Your task to perform on an android device: Clear all items from cart on bestbuy. Search for "logitech g pro" on bestbuy, select the first entry, and add it to the cart. Image 0: 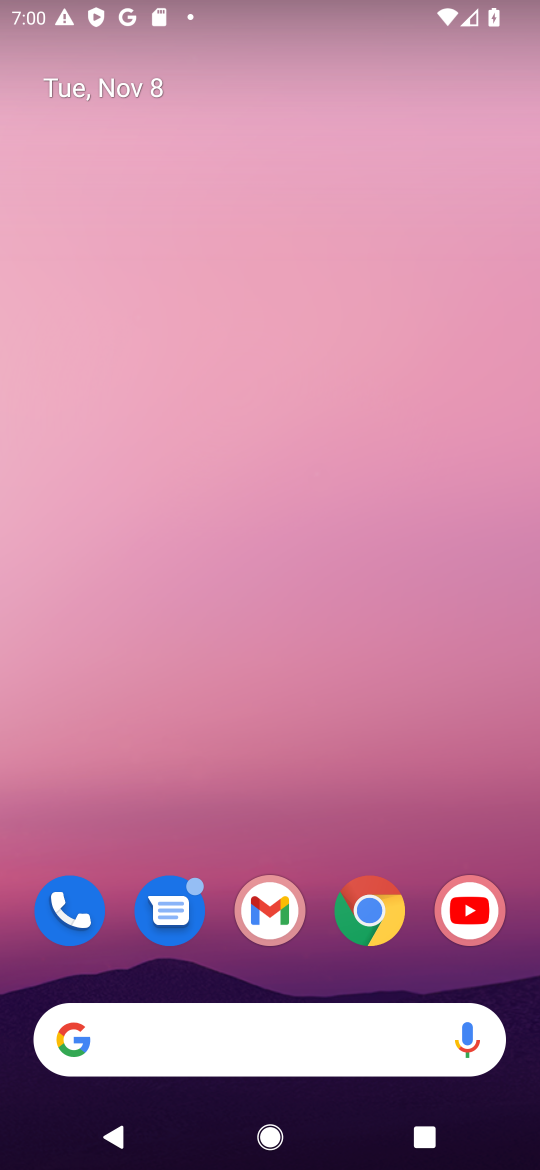
Step 0: click (383, 932)
Your task to perform on an android device: Clear all items from cart on bestbuy. Search for "logitech g pro" on bestbuy, select the first entry, and add it to the cart. Image 1: 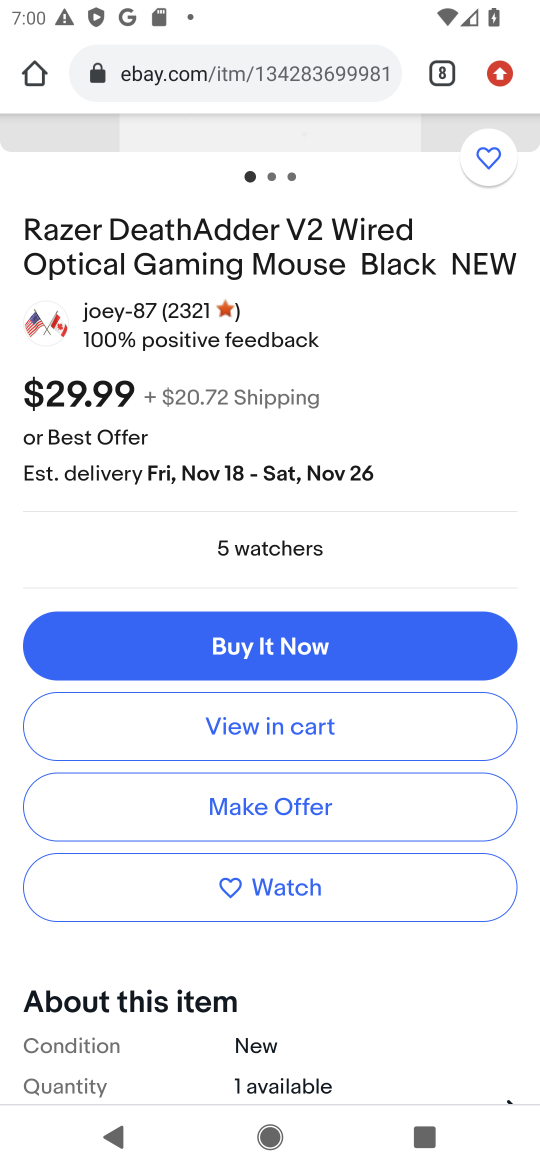
Step 1: click (383, 932)
Your task to perform on an android device: Clear all items from cart on bestbuy. Search for "logitech g pro" on bestbuy, select the first entry, and add it to the cart. Image 2: 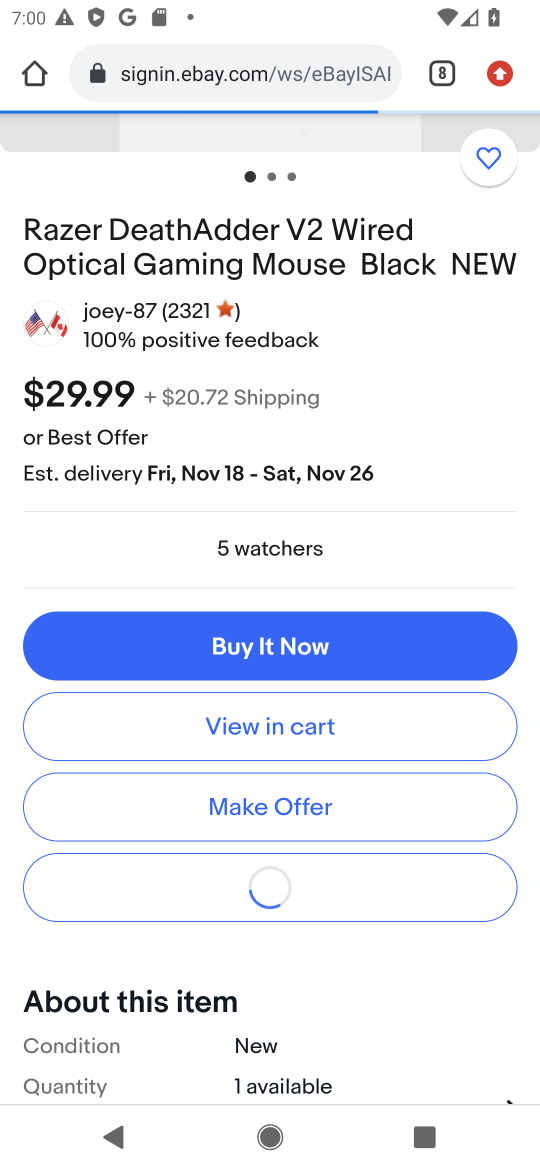
Step 2: click (437, 78)
Your task to perform on an android device: Clear all items from cart on bestbuy. Search for "logitech g pro" on bestbuy, select the first entry, and add it to the cart. Image 3: 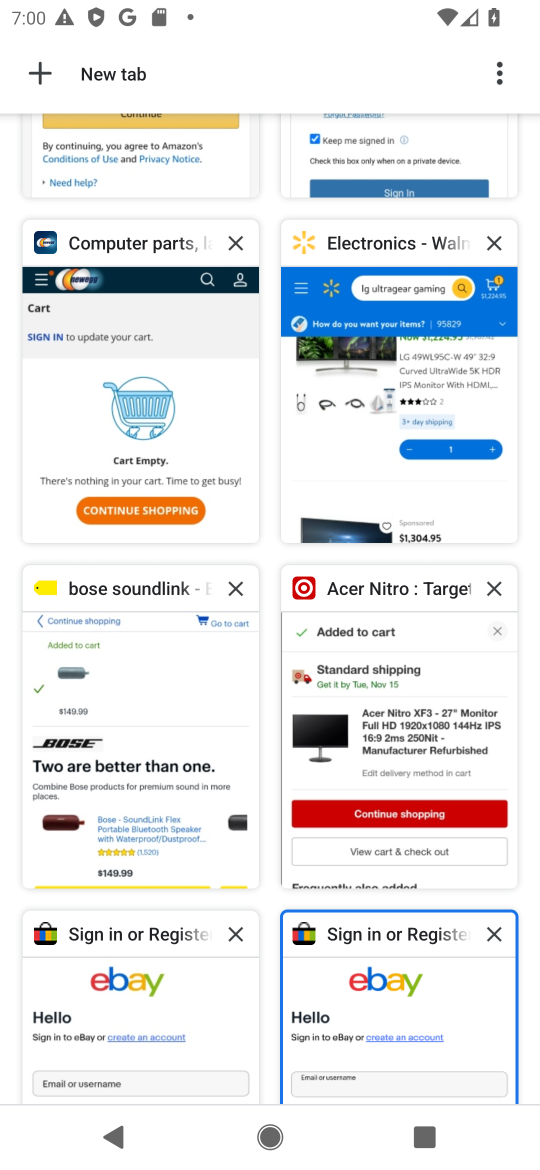
Step 3: click (129, 723)
Your task to perform on an android device: Clear all items from cart on bestbuy. Search for "logitech g pro" on bestbuy, select the first entry, and add it to the cart. Image 4: 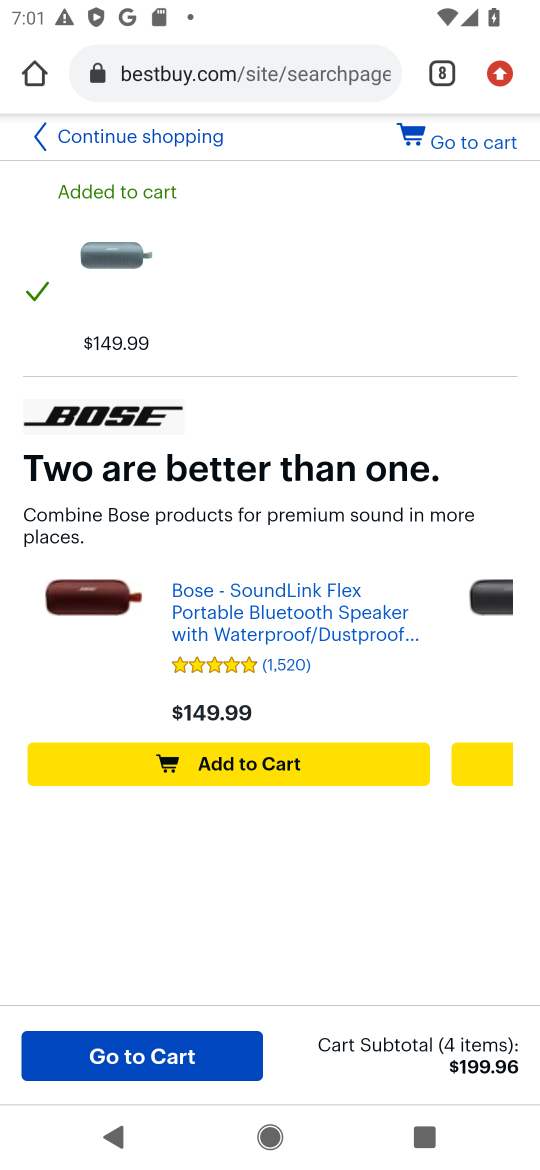
Step 4: click (161, 136)
Your task to perform on an android device: Clear all items from cart on bestbuy. Search for "logitech g pro" on bestbuy, select the first entry, and add it to the cart. Image 5: 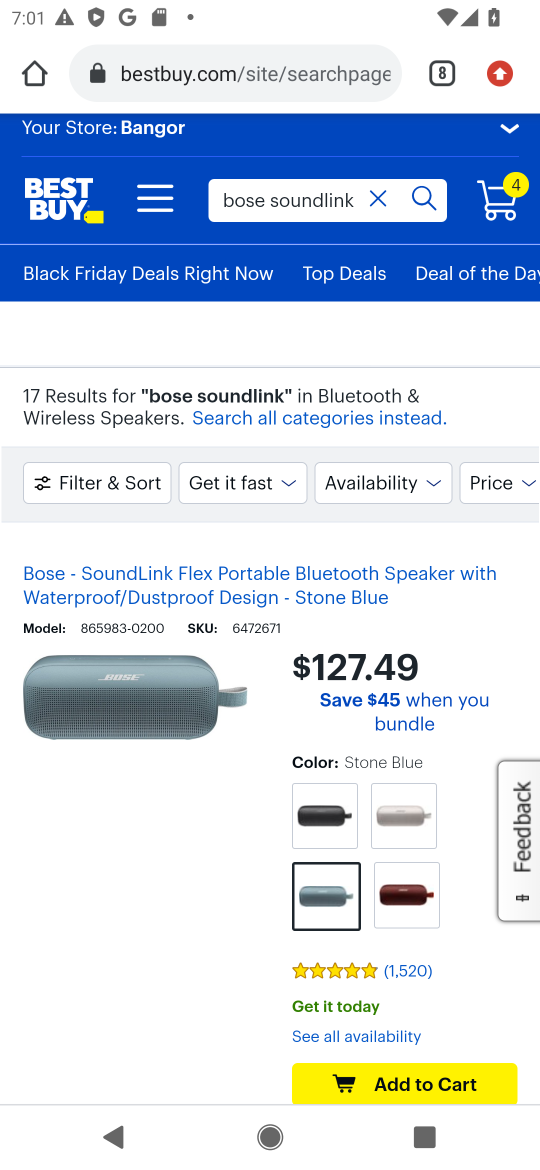
Step 5: click (377, 202)
Your task to perform on an android device: Clear all items from cart on bestbuy. Search for "logitech g pro" on bestbuy, select the first entry, and add it to the cart. Image 6: 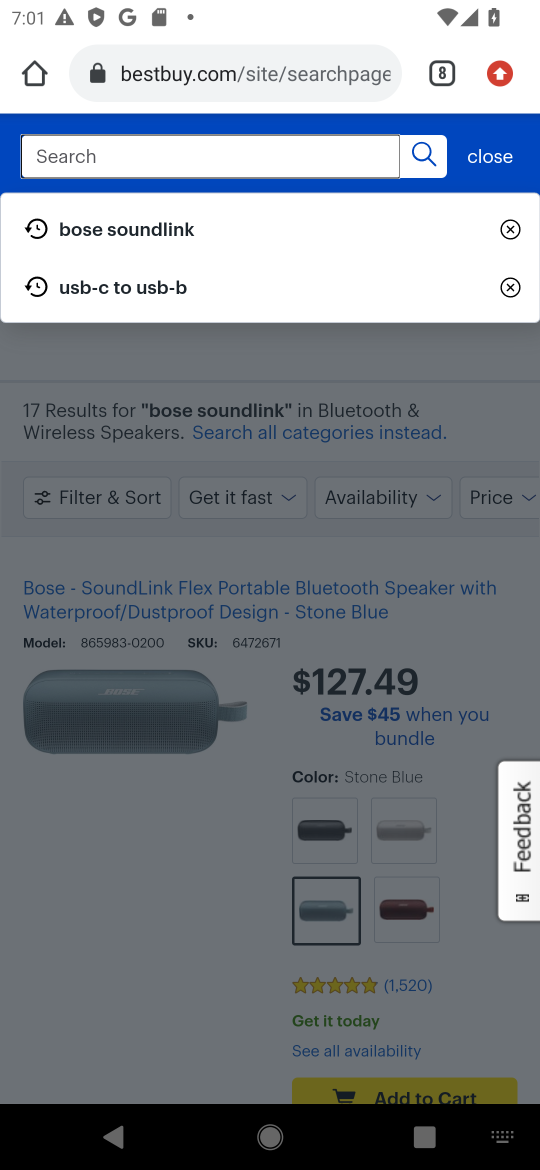
Step 6: type "logitech g pro"
Your task to perform on an android device: Clear all items from cart on bestbuy. Search for "logitech g pro" on bestbuy, select the first entry, and add it to the cart. Image 7: 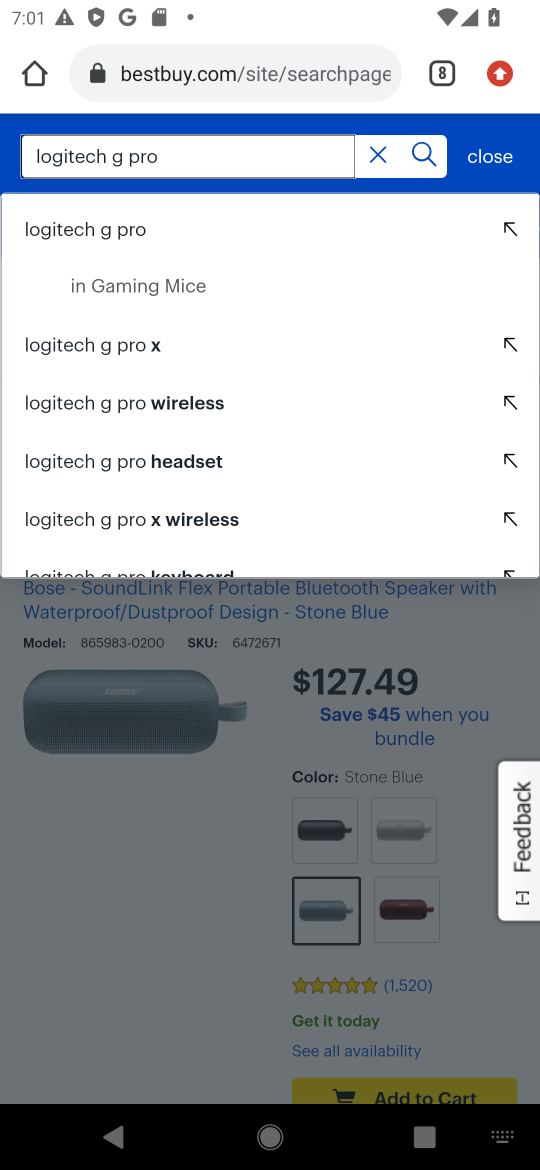
Step 7: click (98, 238)
Your task to perform on an android device: Clear all items from cart on bestbuy. Search for "logitech g pro" on bestbuy, select the first entry, and add it to the cart. Image 8: 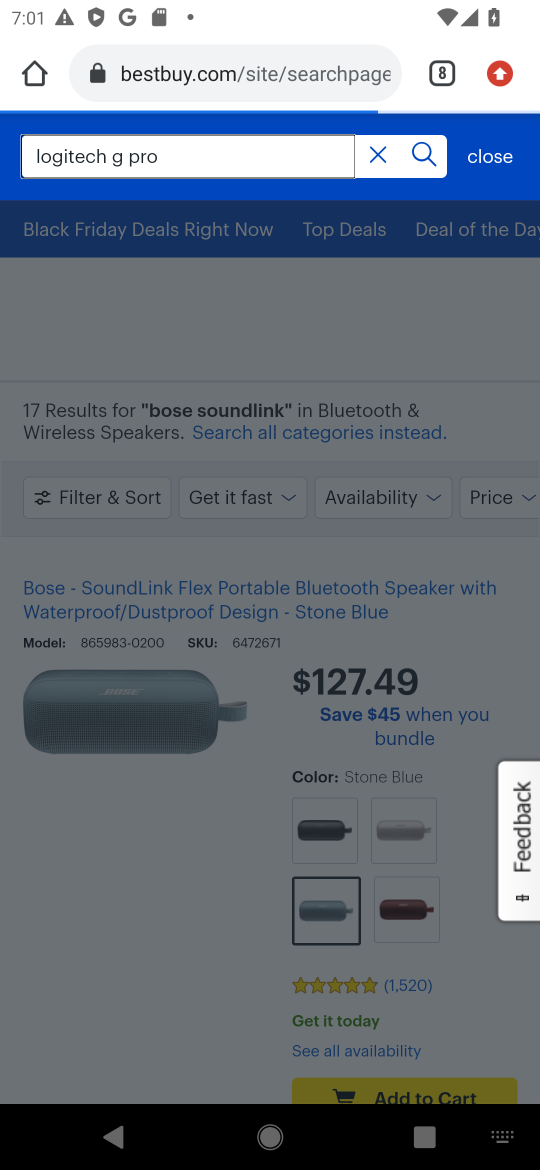
Step 8: click (98, 238)
Your task to perform on an android device: Clear all items from cart on bestbuy. Search for "logitech g pro" on bestbuy, select the first entry, and add it to the cart. Image 9: 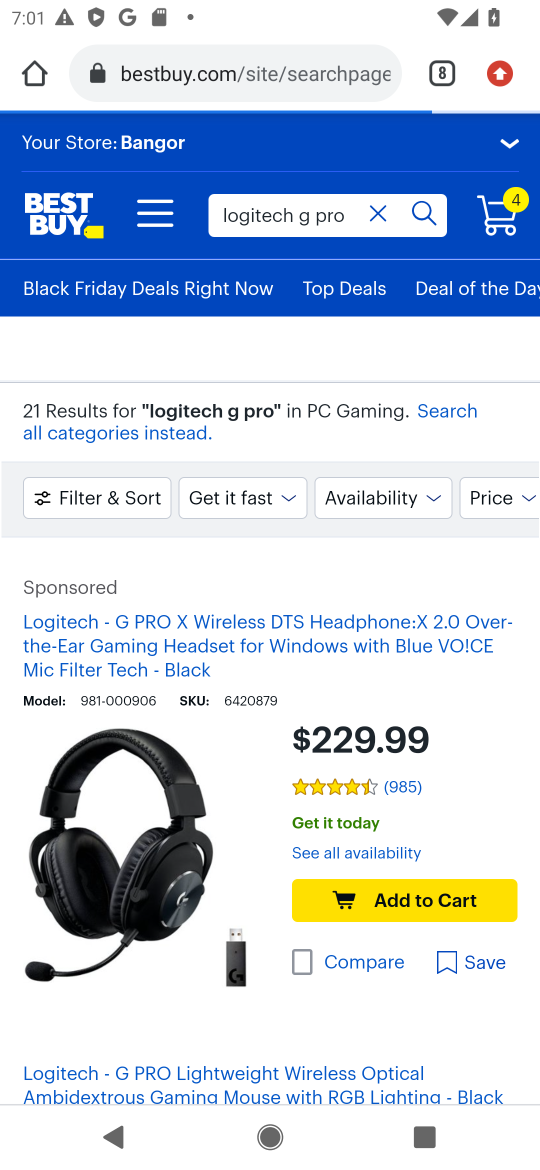
Step 9: click (373, 908)
Your task to perform on an android device: Clear all items from cart on bestbuy. Search for "logitech g pro" on bestbuy, select the first entry, and add it to the cart. Image 10: 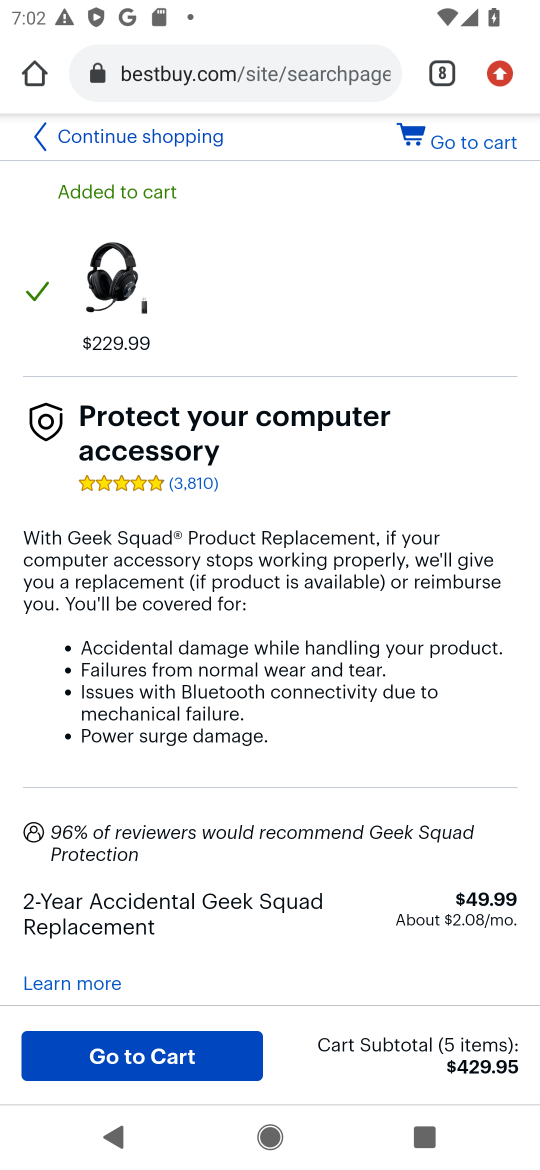
Step 10: click (152, 1065)
Your task to perform on an android device: Clear all items from cart on bestbuy. Search for "logitech g pro" on bestbuy, select the first entry, and add it to the cart. Image 11: 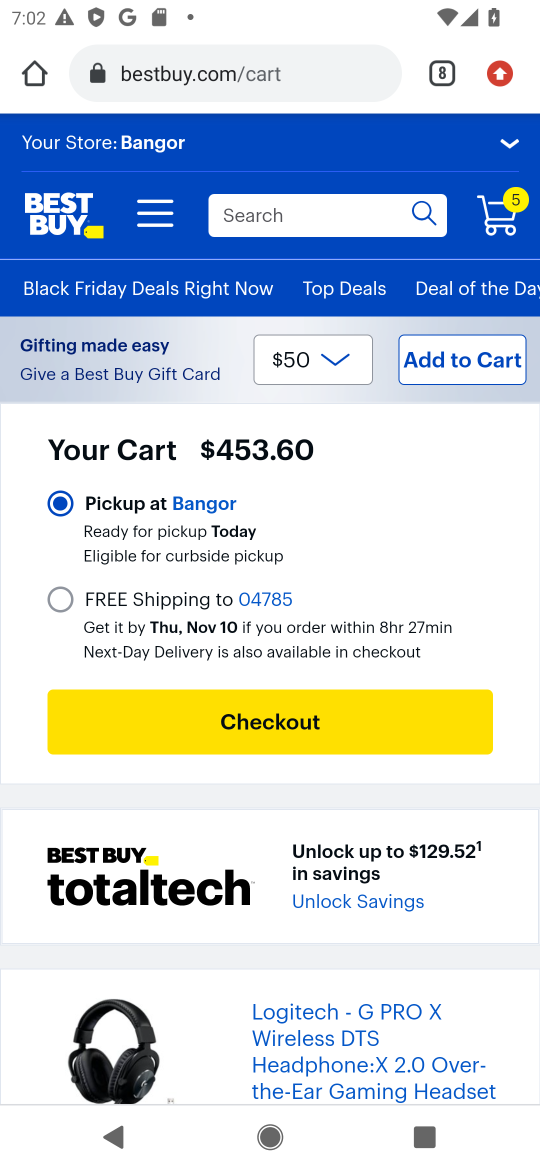
Step 11: task complete